Your task to perform on an android device: Search for sushi restaurants on Maps Image 0: 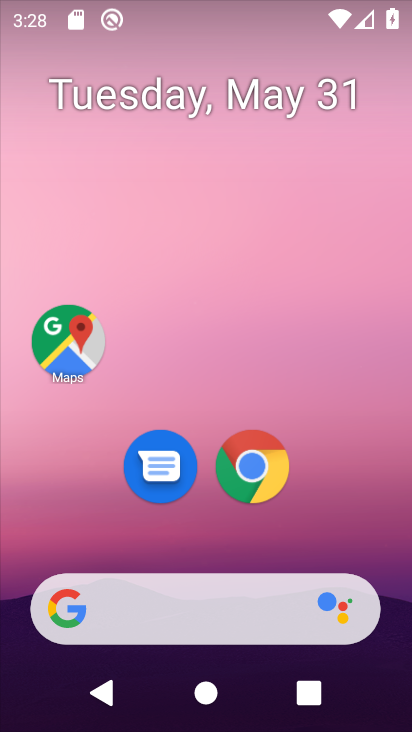
Step 0: click (68, 335)
Your task to perform on an android device: Search for sushi restaurants on Maps Image 1: 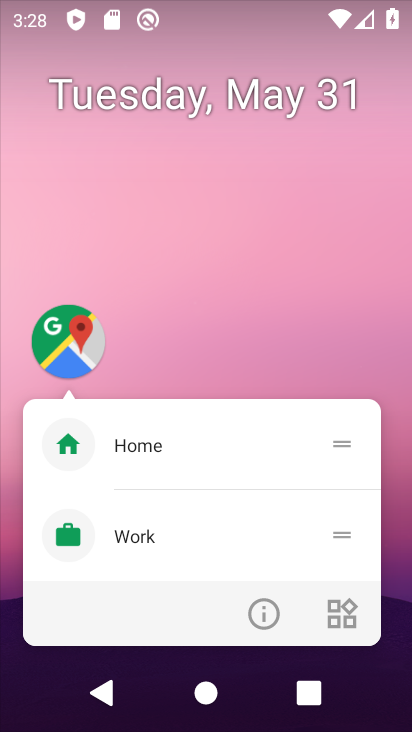
Step 1: click (67, 341)
Your task to perform on an android device: Search for sushi restaurants on Maps Image 2: 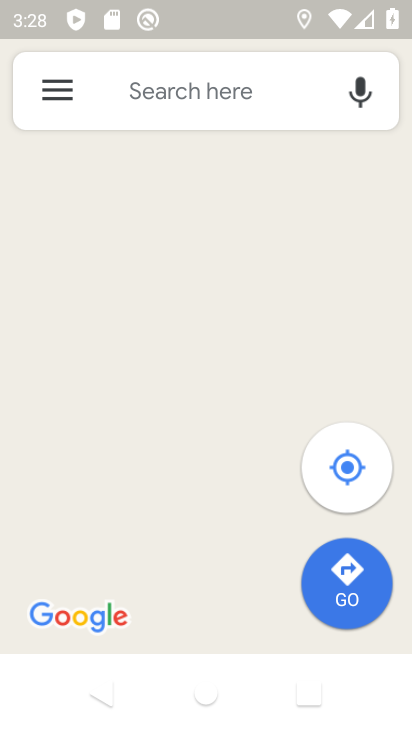
Step 2: click (186, 92)
Your task to perform on an android device: Search for sushi restaurants on Maps Image 3: 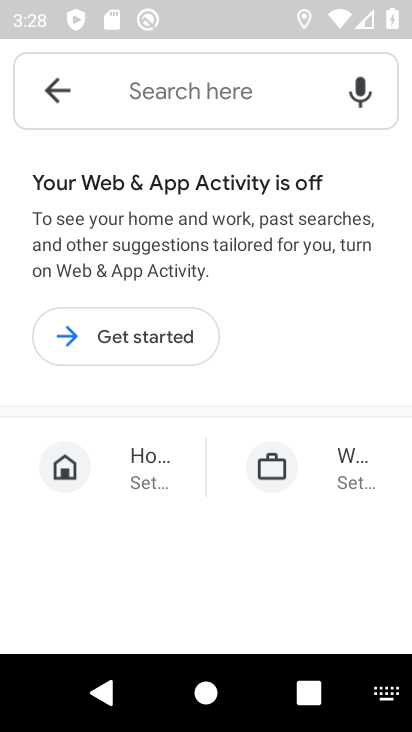
Step 3: type "sushi restarants"
Your task to perform on an android device: Search for sushi restaurants on Maps Image 4: 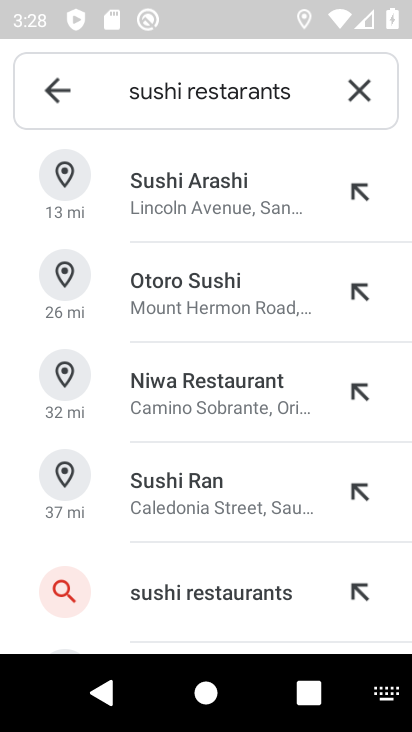
Step 4: click (174, 588)
Your task to perform on an android device: Search for sushi restaurants on Maps Image 5: 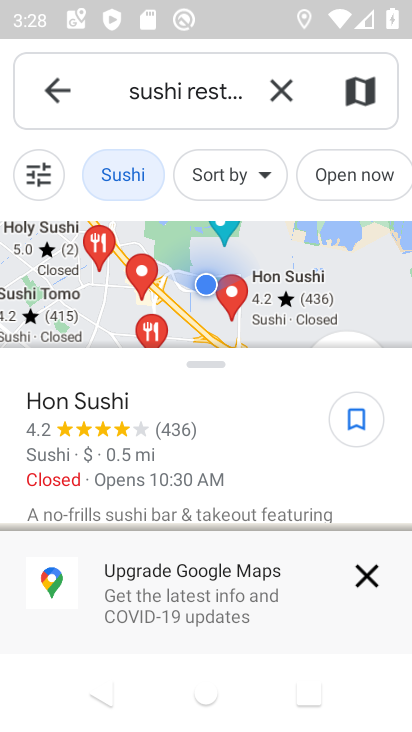
Step 5: task complete